Your task to perform on an android device: toggle sleep mode Image 0: 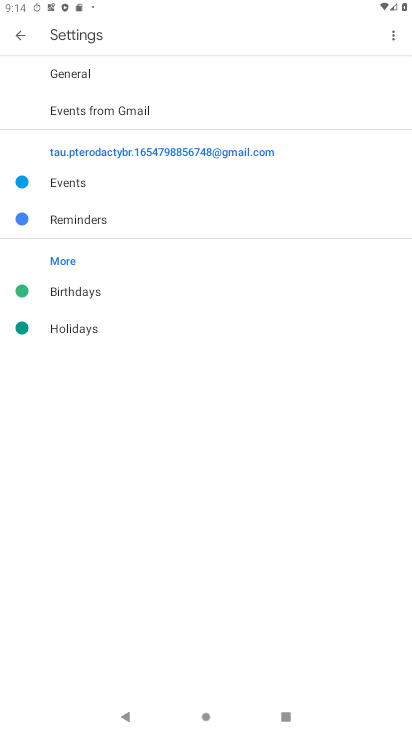
Step 0: press home button
Your task to perform on an android device: toggle sleep mode Image 1: 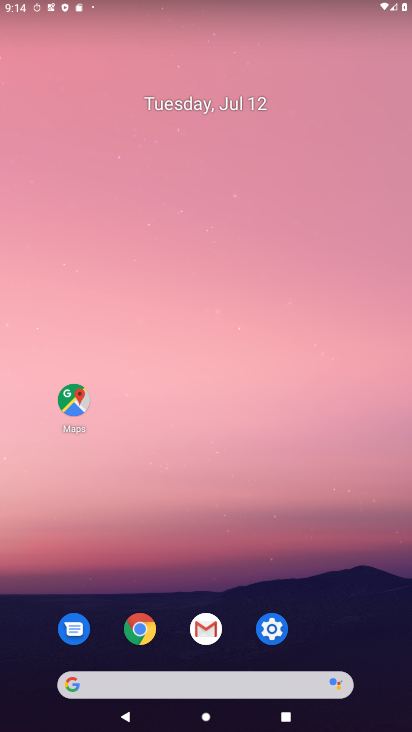
Step 1: click (269, 640)
Your task to perform on an android device: toggle sleep mode Image 2: 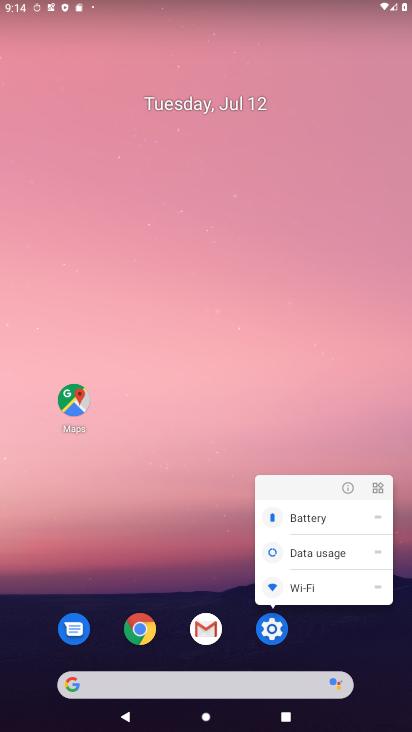
Step 2: click (279, 628)
Your task to perform on an android device: toggle sleep mode Image 3: 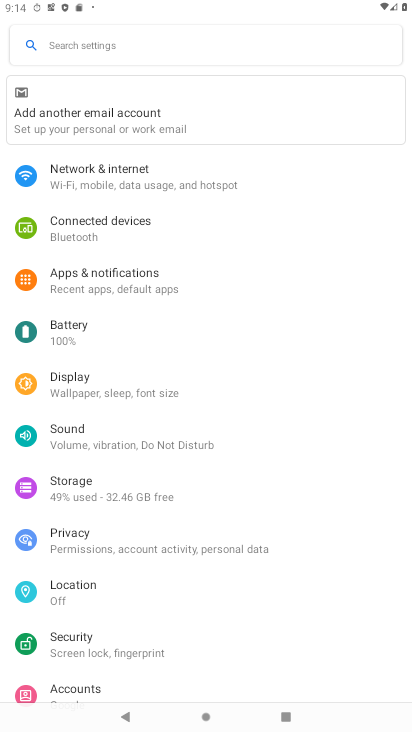
Step 3: click (102, 52)
Your task to perform on an android device: toggle sleep mode Image 4: 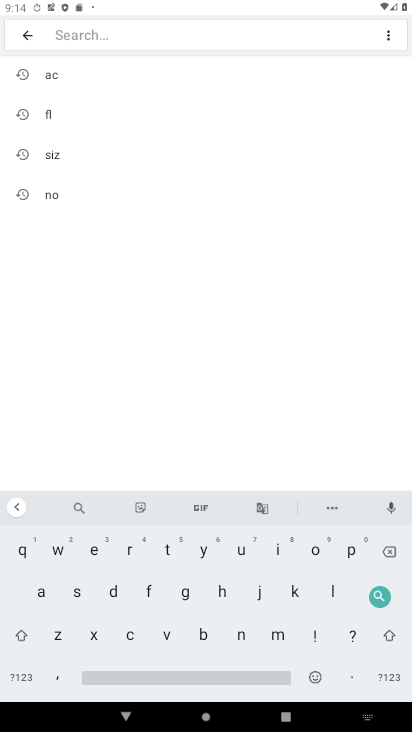
Step 4: click (73, 589)
Your task to perform on an android device: toggle sleep mode Image 5: 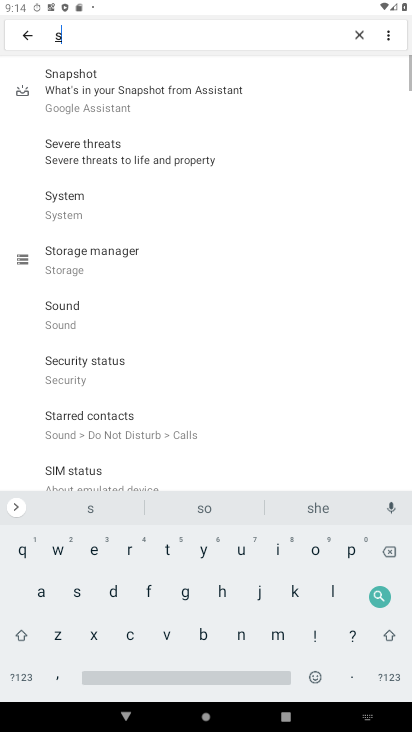
Step 5: click (334, 591)
Your task to perform on an android device: toggle sleep mode Image 6: 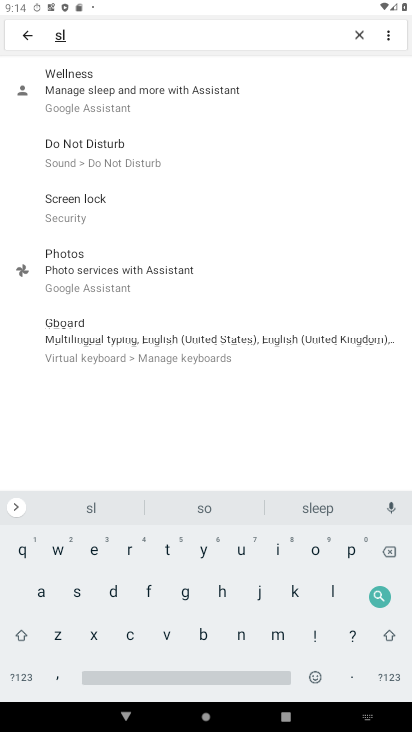
Step 6: click (92, 547)
Your task to perform on an android device: toggle sleep mode Image 7: 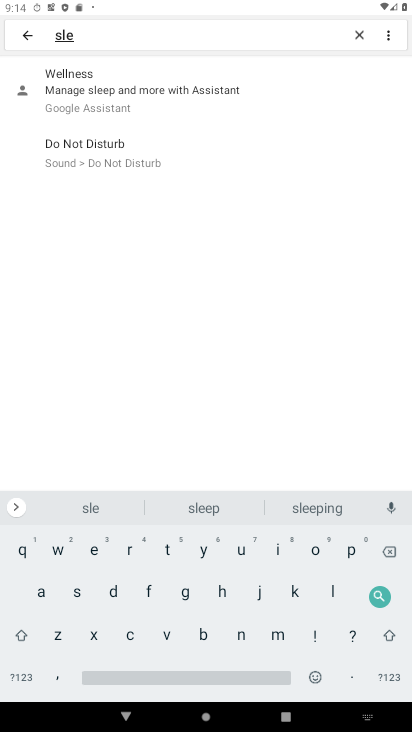
Step 7: click (125, 87)
Your task to perform on an android device: toggle sleep mode Image 8: 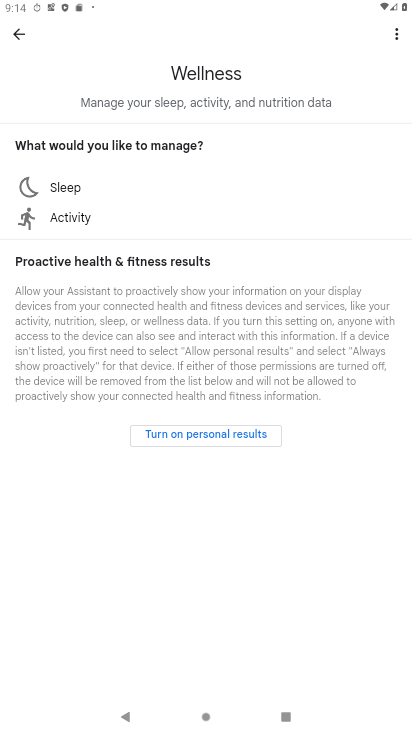
Step 8: click (69, 180)
Your task to perform on an android device: toggle sleep mode Image 9: 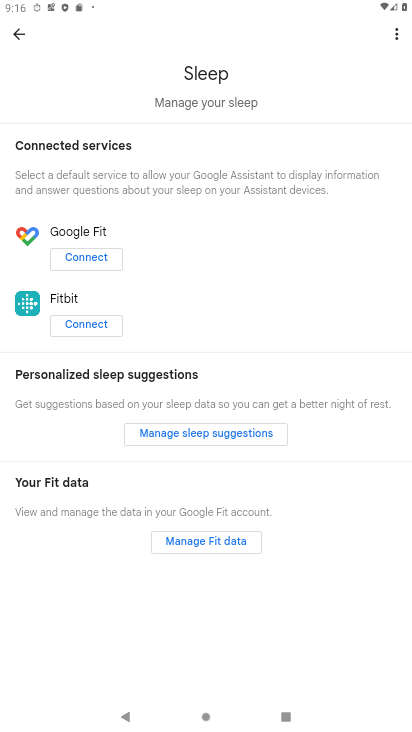
Step 9: task complete